Your task to perform on an android device: change the clock display to analog Image 0: 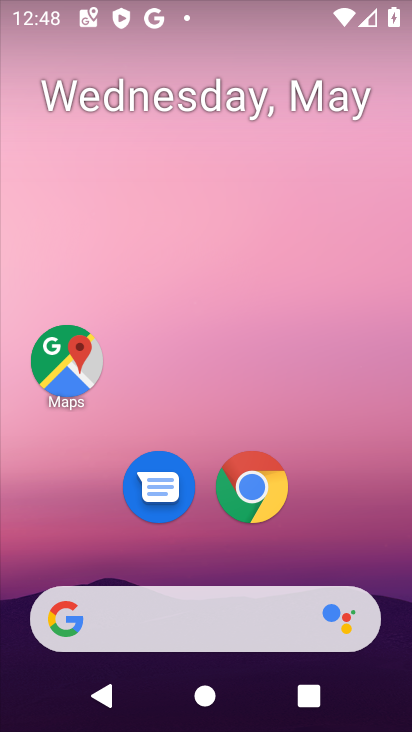
Step 0: drag from (203, 528) to (273, 1)
Your task to perform on an android device: change the clock display to analog Image 1: 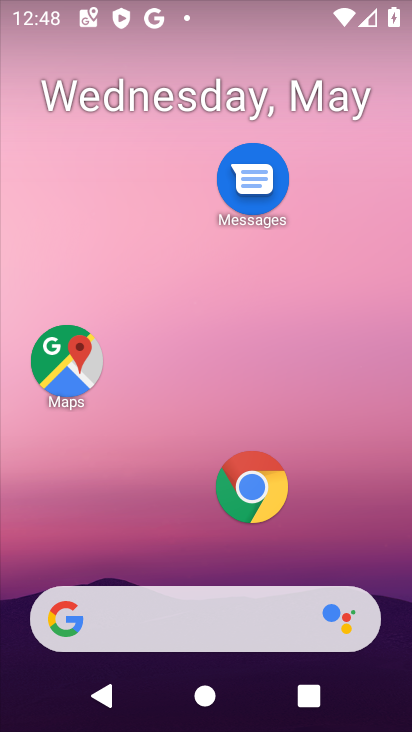
Step 1: drag from (203, 570) to (288, 5)
Your task to perform on an android device: change the clock display to analog Image 2: 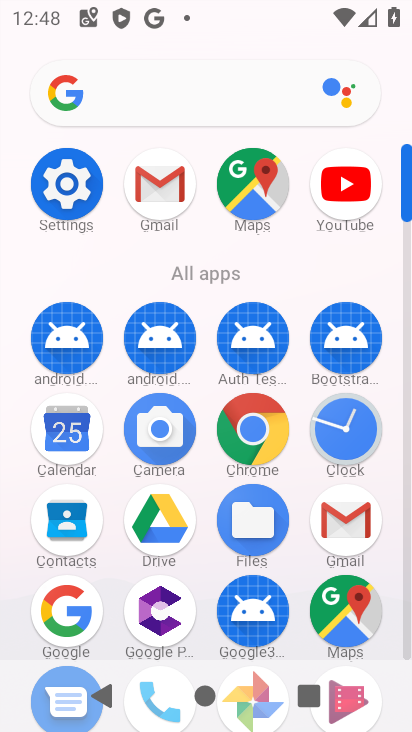
Step 2: click (345, 448)
Your task to perform on an android device: change the clock display to analog Image 3: 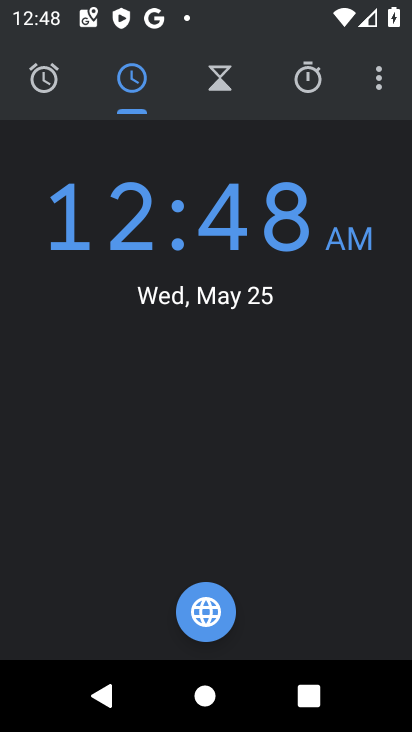
Step 3: click (369, 85)
Your task to perform on an android device: change the clock display to analog Image 4: 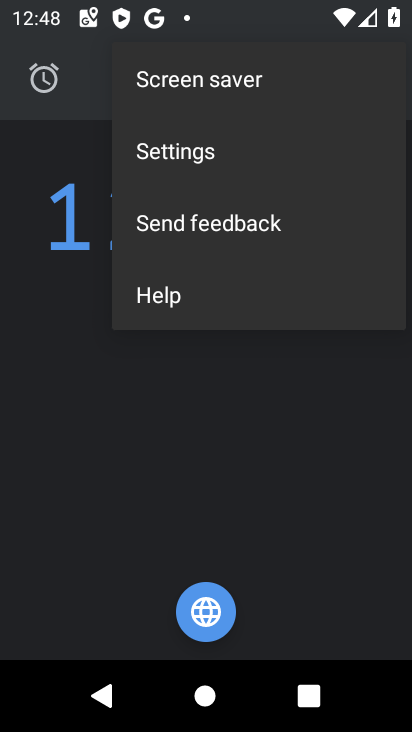
Step 4: click (205, 154)
Your task to perform on an android device: change the clock display to analog Image 5: 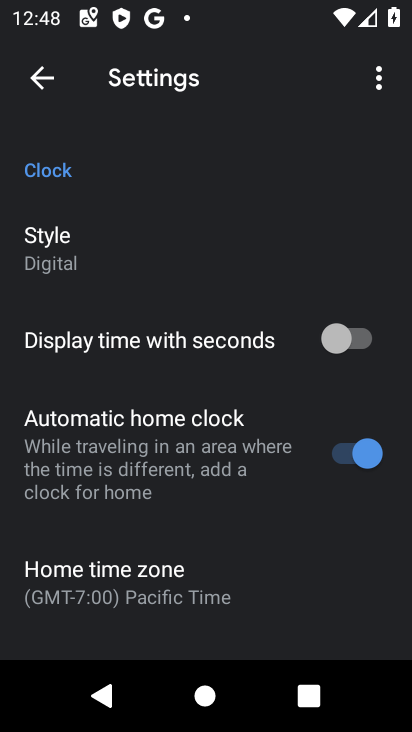
Step 5: click (84, 273)
Your task to perform on an android device: change the clock display to analog Image 6: 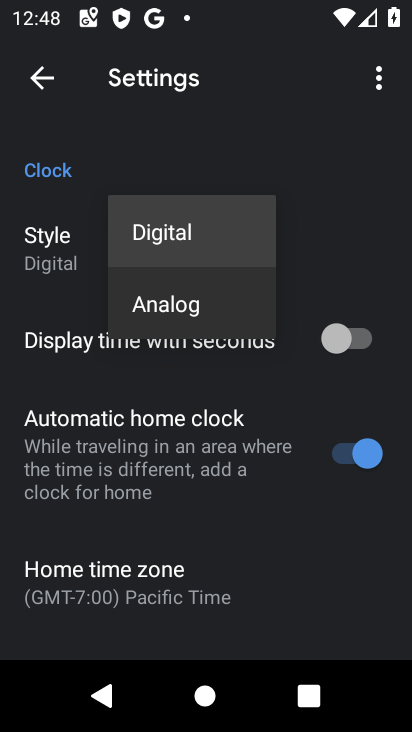
Step 6: click (151, 308)
Your task to perform on an android device: change the clock display to analog Image 7: 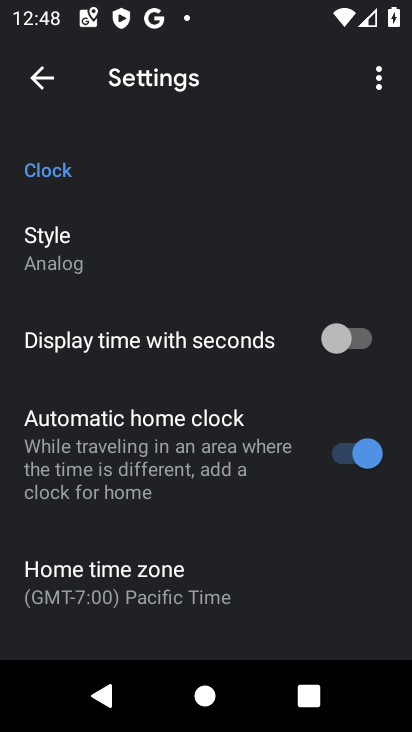
Step 7: task complete